Your task to perform on an android device: Open the stopwatch Image 0: 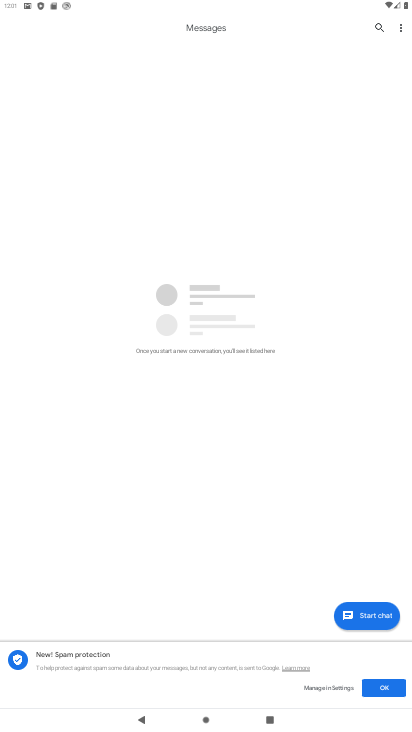
Step 0: press home button
Your task to perform on an android device: Open the stopwatch Image 1: 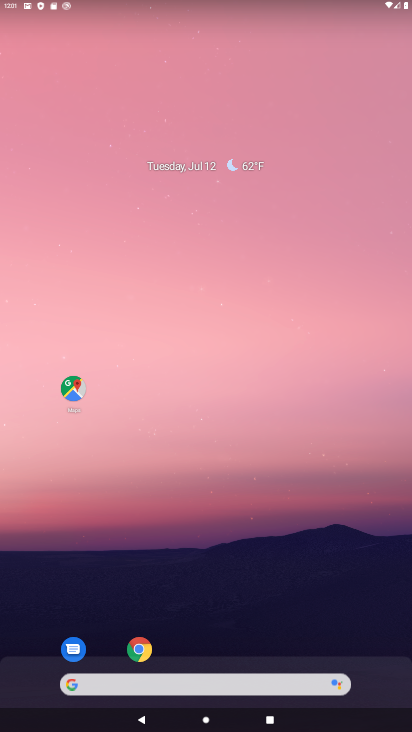
Step 1: drag from (267, 436) to (315, 44)
Your task to perform on an android device: Open the stopwatch Image 2: 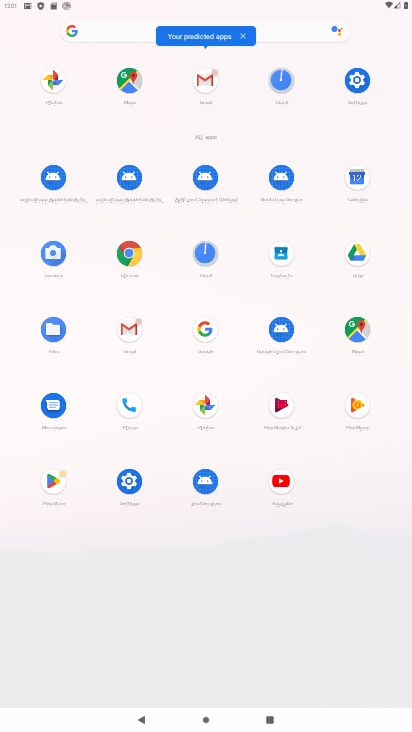
Step 2: click (201, 257)
Your task to perform on an android device: Open the stopwatch Image 3: 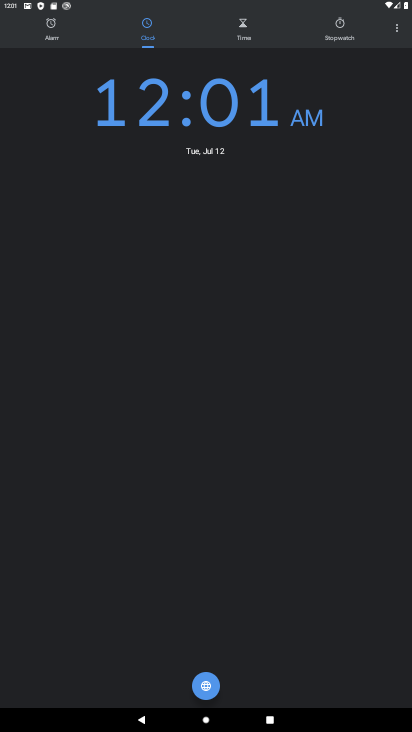
Step 3: click (340, 31)
Your task to perform on an android device: Open the stopwatch Image 4: 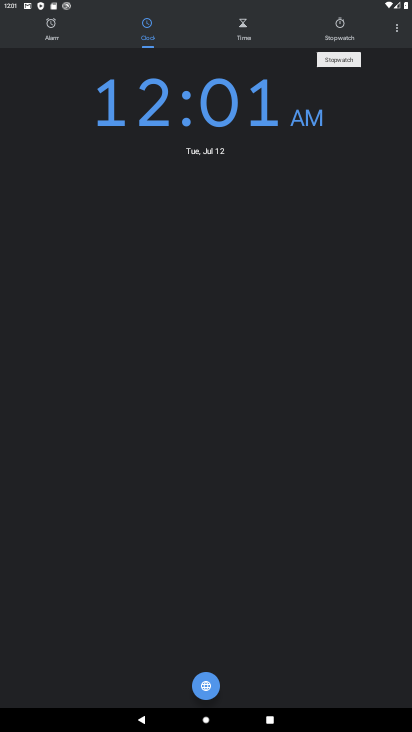
Step 4: click (340, 31)
Your task to perform on an android device: Open the stopwatch Image 5: 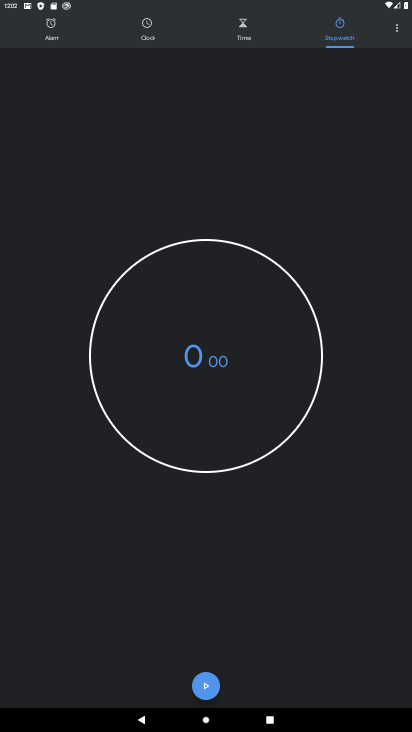
Step 5: task complete